Your task to perform on an android device: all mails in gmail Image 0: 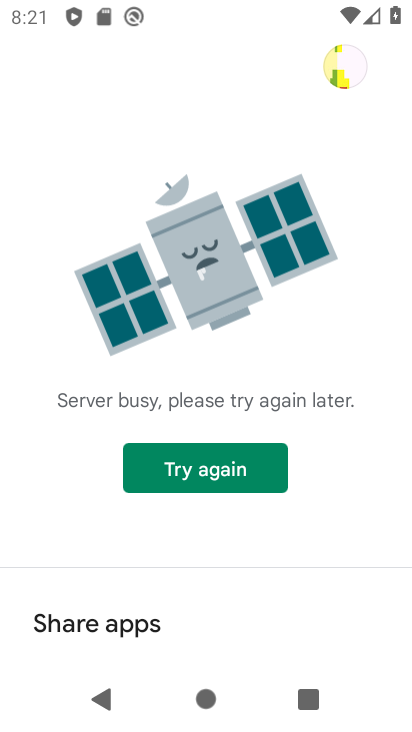
Step 0: press home button
Your task to perform on an android device: all mails in gmail Image 1: 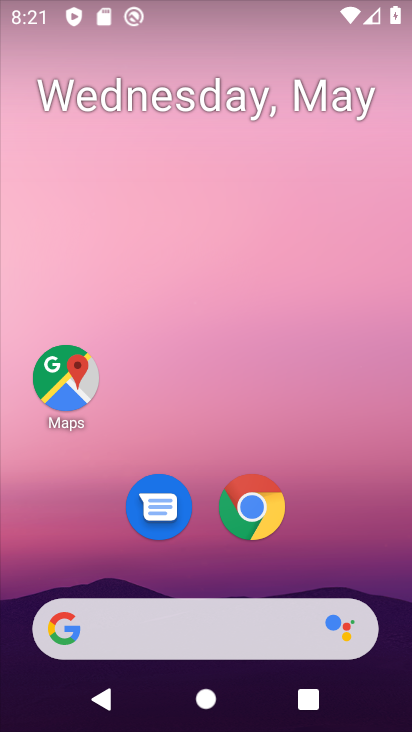
Step 1: drag from (309, 560) to (279, 51)
Your task to perform on an android device: all mails in gmail Image 2: 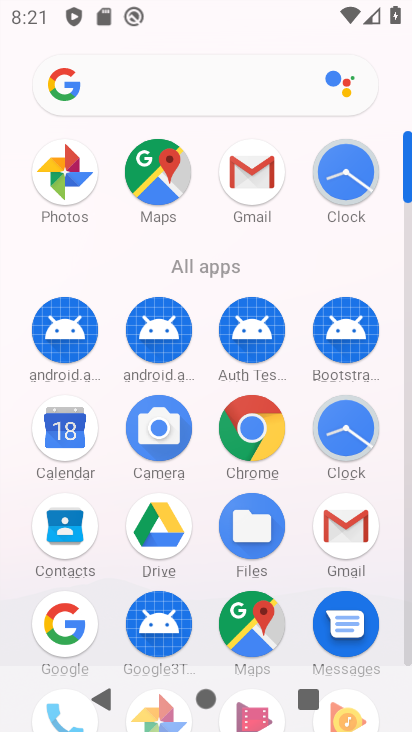
Step 2: click (244, 178)
Your task to perform on an android device: all mails in gmail Image 3: 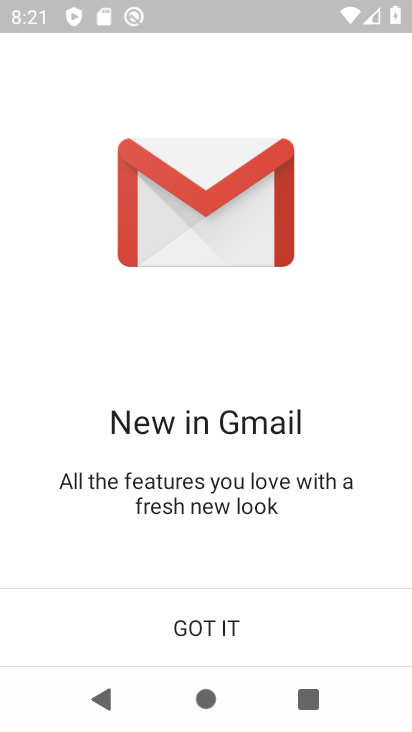
Step 3: click (269, 625)
Your task to perform on an android device: all mails in gmail Image 4: 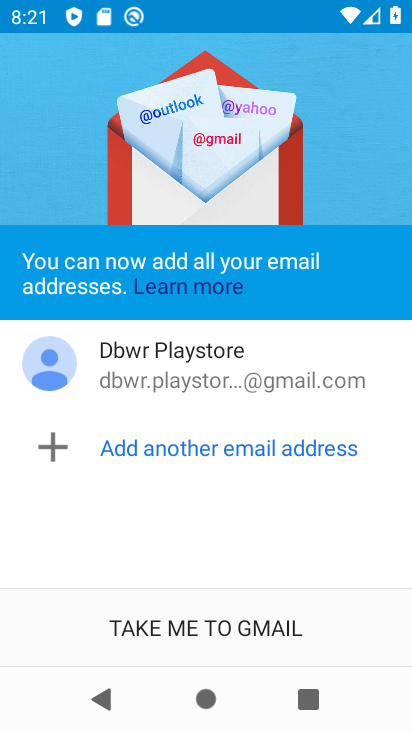
Step 4: click (269, 625)
Your task to perform on an android device: all mails in gmail Image 5: 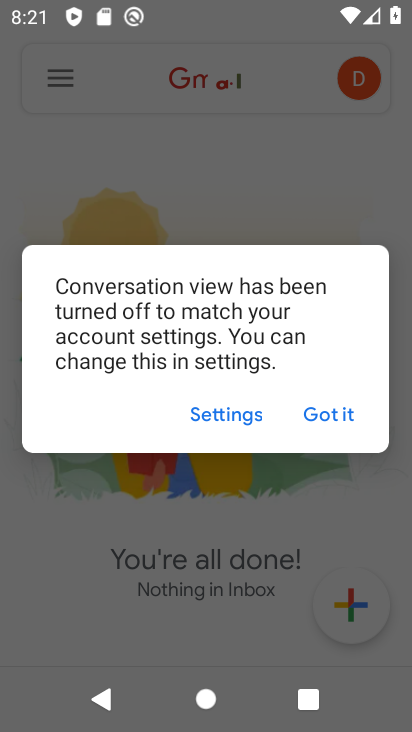
Step 5: click (345, 417)
Your task to perform on an android device: all mails in gmail Image 6: 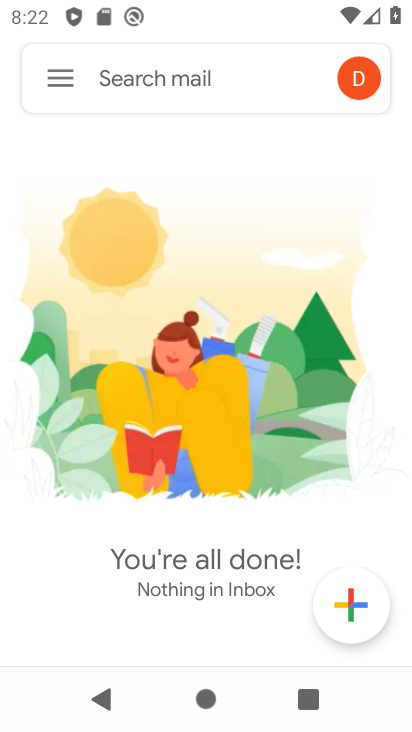
Step 6: click (54, 83)
Your task to perform on an android device: all mails in gmail Image 7: 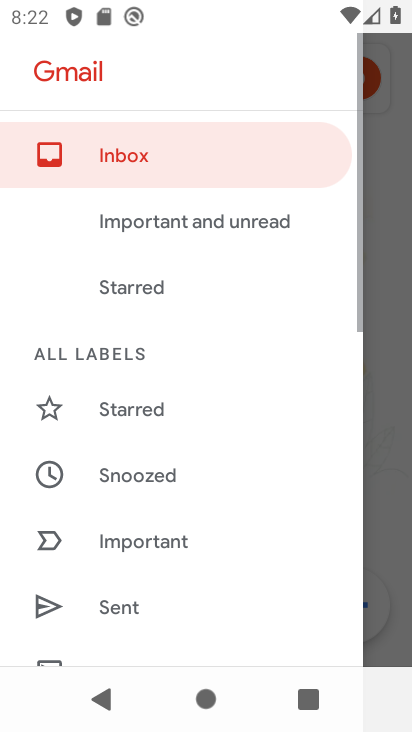
Step 7: drag from (225, 604) to (260, 176)
Your task to perform on an android device: all mails in gmail Image 8: 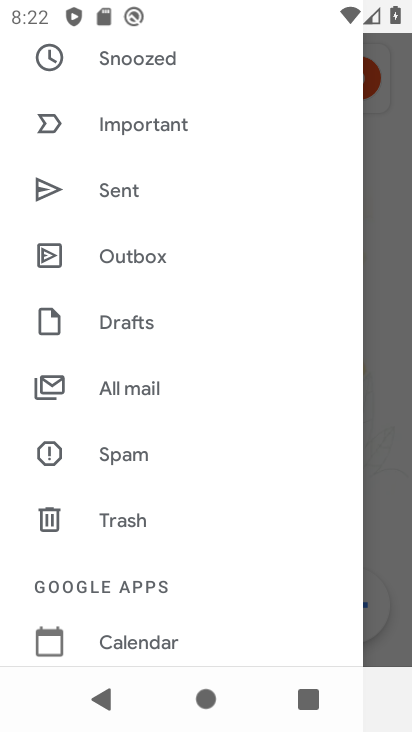
Step 8: click (128, 384)
Your task to perform on an android device: all mails in gmail Image 9: 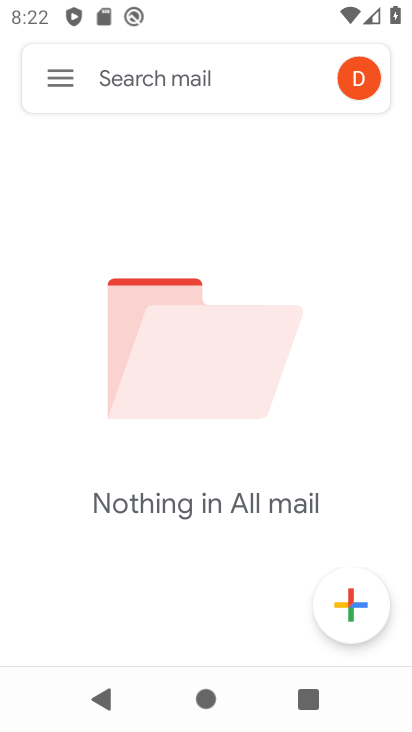
Step 9: task complete